Your task to perform on an android device: Go to Google maps Image 0: 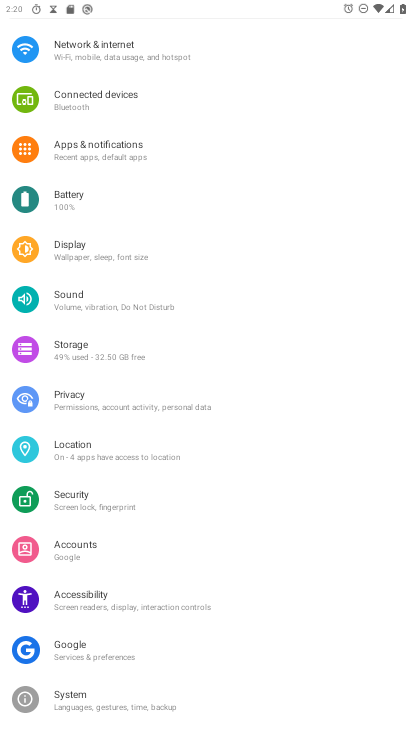
Step 0: press home button
Your task to perform on an android device: Go to Google maps Image 1: 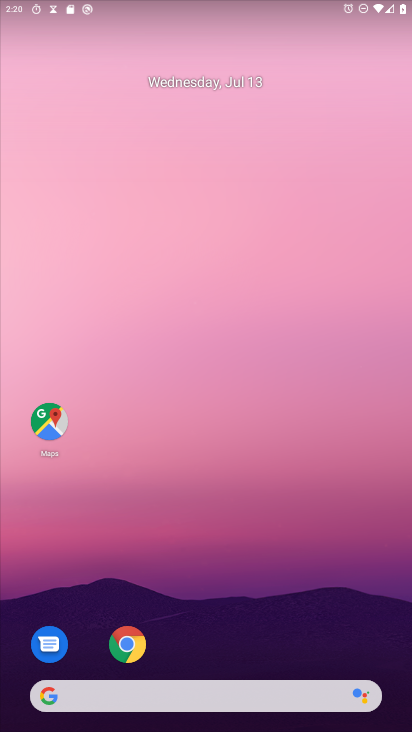
Step 1: click (55, 422)
Your task to perform on an android device: Go to Google maps Image 2: 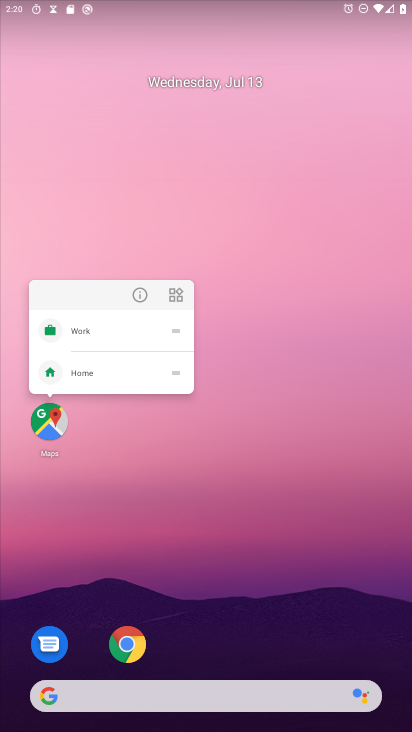
Step 2: click (39, 420)
Your task to perform on an android device: Go to Google maps Image 3: 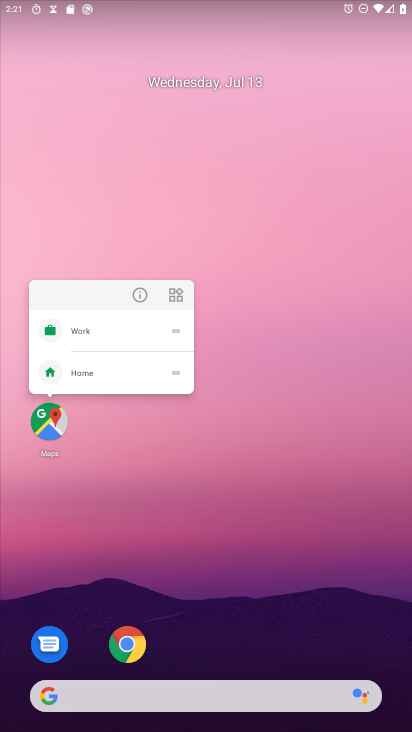
Step 3: click (40, 427)
Your task to perform on an android device: Go to Google maps Image 4: 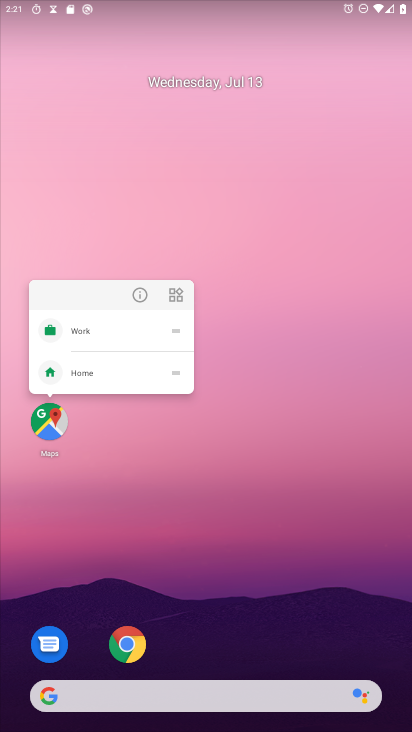
Step 4: click (58, 443)
Your task to perform on an android device: Go to Google maps Image 5: 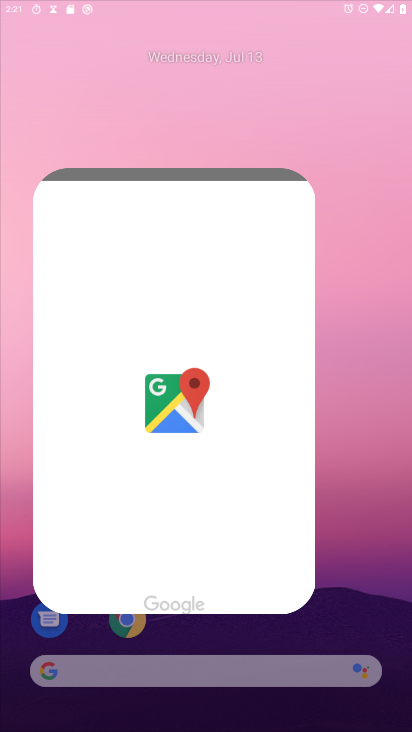
Step 5: click (56, 432)
Your task to perform on an android device: Go to Google maps Image 6: 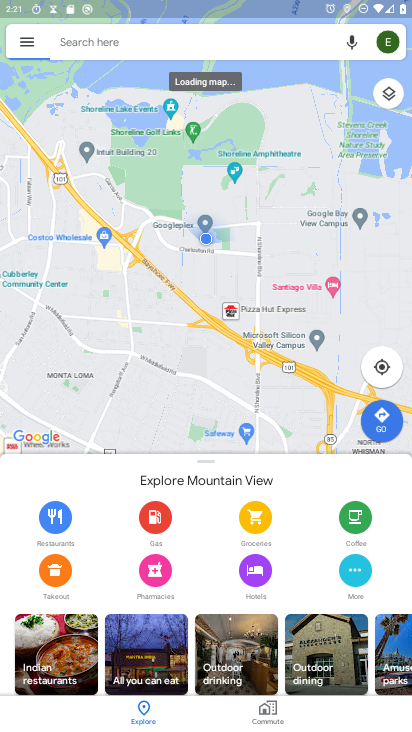
Step 6: task complete